Your task to perform on an android device: Open wifi settings Image 0: 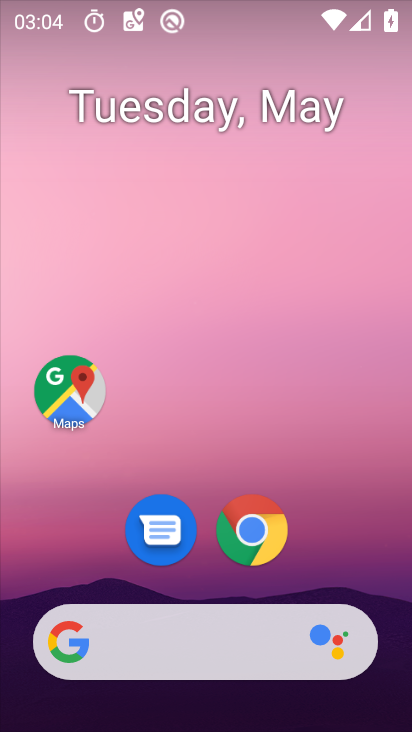
Step 0: drag from (320, 9) to (285, 298)
Your task to perform on an android device: Open wifi settings Image 1: 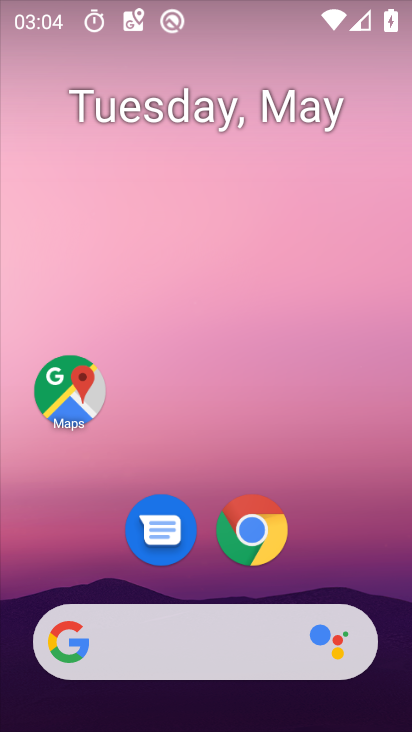
Step 1: drag from (302, 10) to (231, 397)
Your task to perform on an android device: Open wifi settings Image 2: 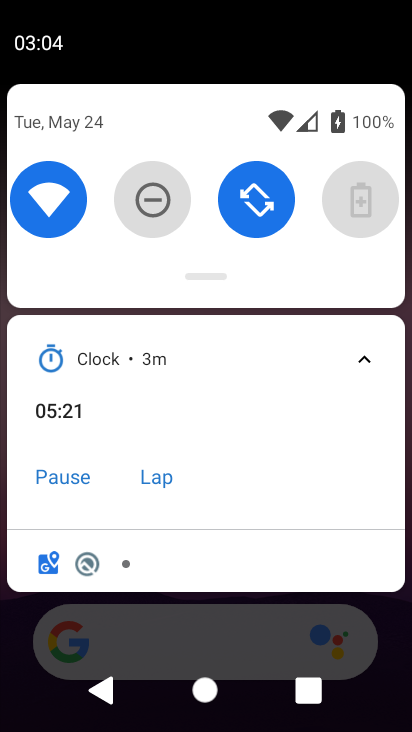
Step 2: click (34, 181)
Your task to perform on an android device: Open wifi settings Image 3: 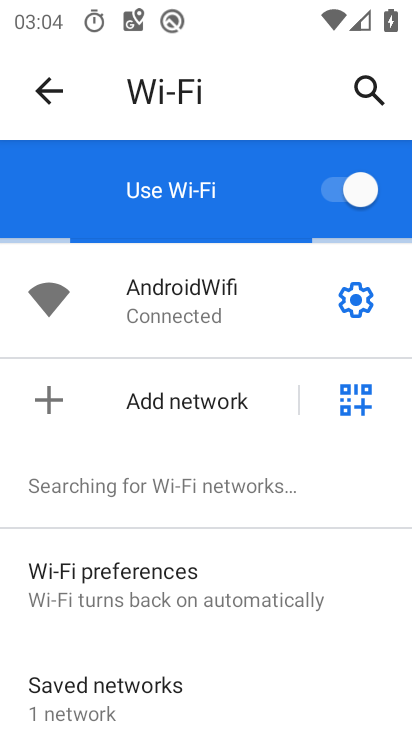
Step 3: click (369, 305)
Your task to perform on an android device: Open wifi settings Image 4: 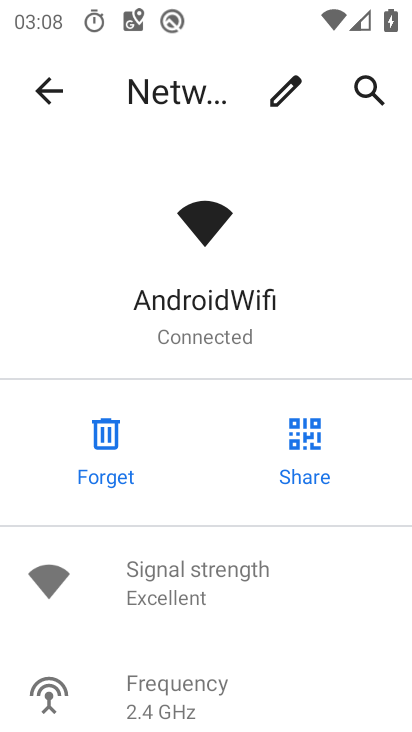
Step 4: task complete